Your task to perform on an android device: toggle location history Image 0: 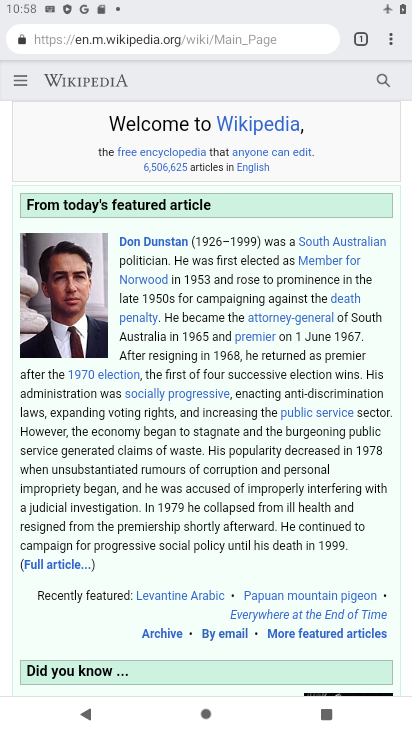
Step 0: press home button
Your task to perform on an android device: toggle location history Image 1: 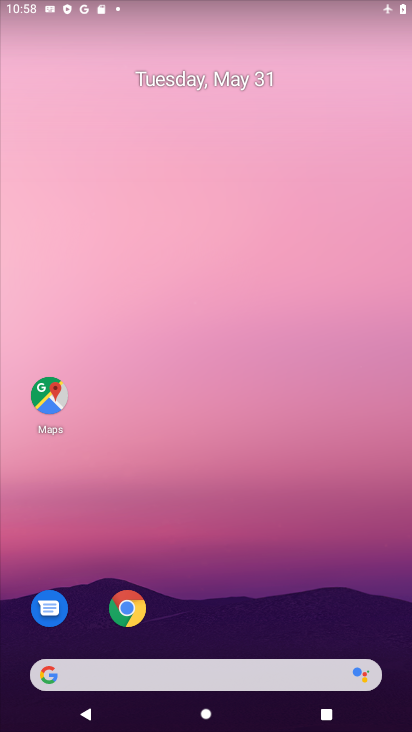
Step 1: click (57, 392)
Your task to perform on an android device: toggle location history Image 2: 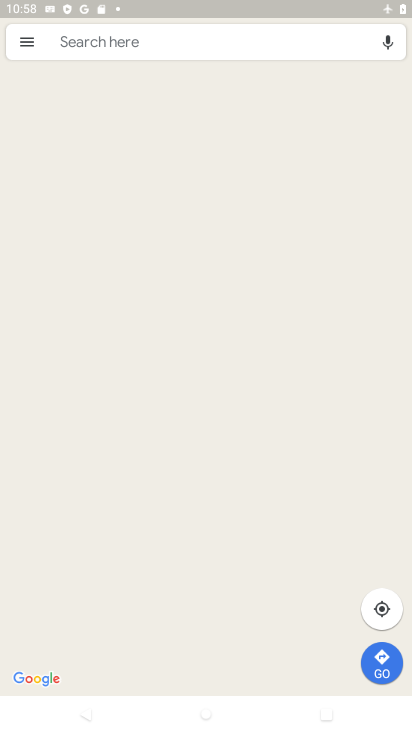
Step 2: drag from (391, 4) to (344, 647)
Your task to perform on an android device: toggle location history Image 3: 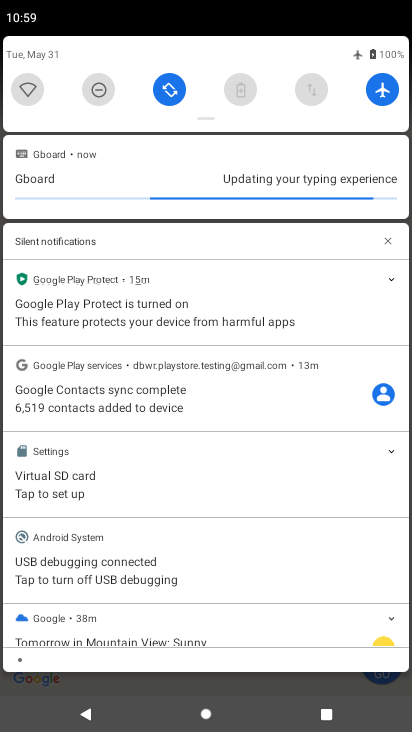
Step 3: click (375, 82)
Your task to perform on an android device: toggle location history Image 4: 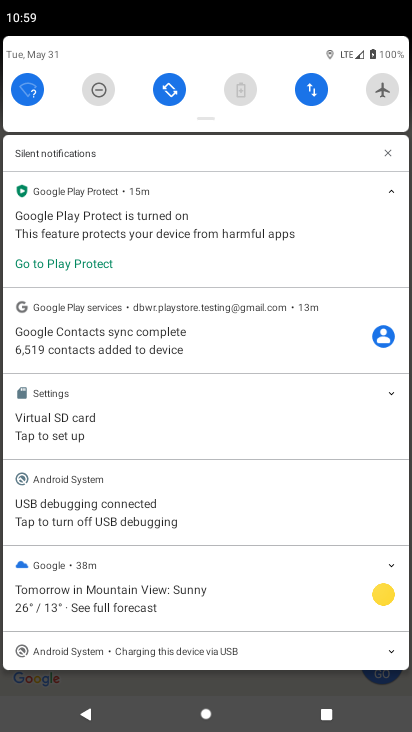
Step 4: drag from (176, 679) to (167, 245)
Your task to perform on an android device: toggle location history Image 5: 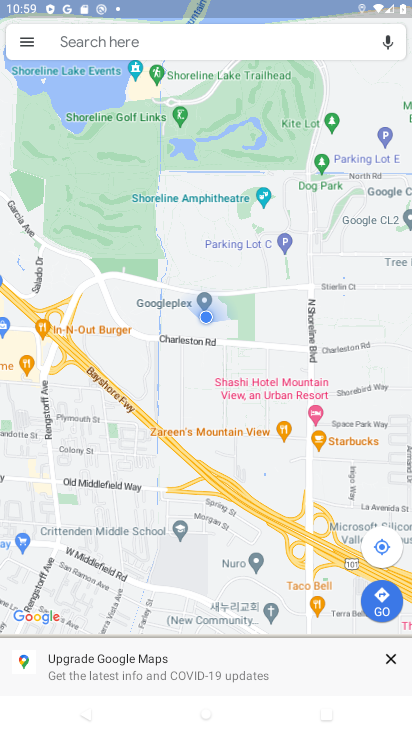
Step 5: click (23, 33)
Your task to perform on an android device: toggle location history Image 6: 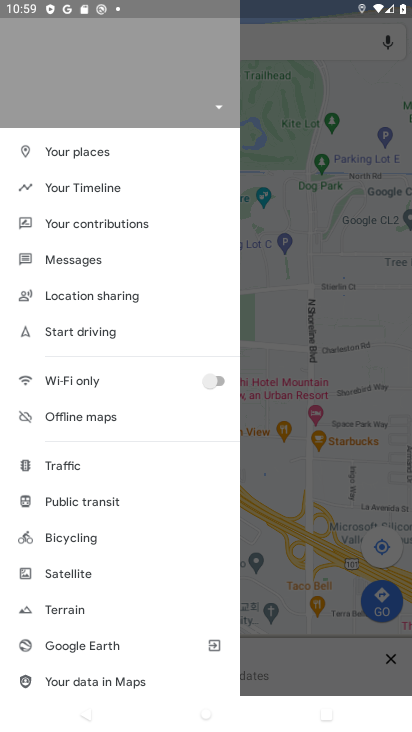
Step 6: click (79, 187)
Your task to perform on an android device: toggle location history Image 7: 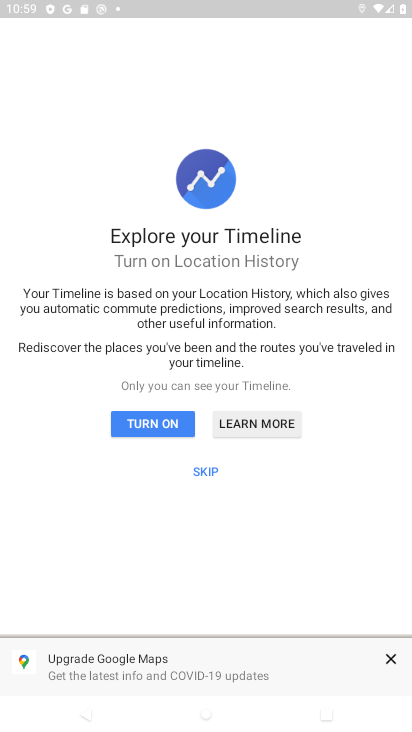
Step 7: click (153, 417)
Your task to perform on an android device: toggle location history Image 8: 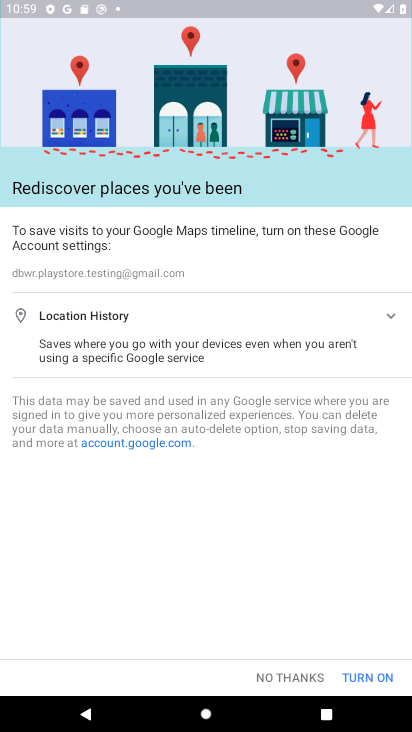
Step 8: drag from (304, 590) to (308, 107)
Your task to perform on an android device: toggle location history Image 9: 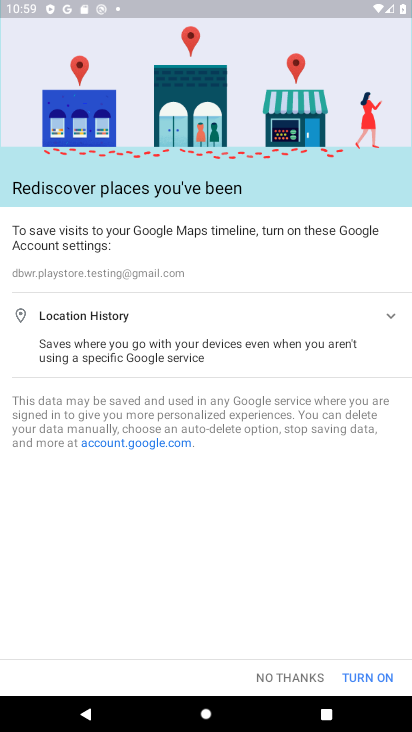
Step 9: click (366, 676)
Your task to perform on an android device: toggle location history Image 10: 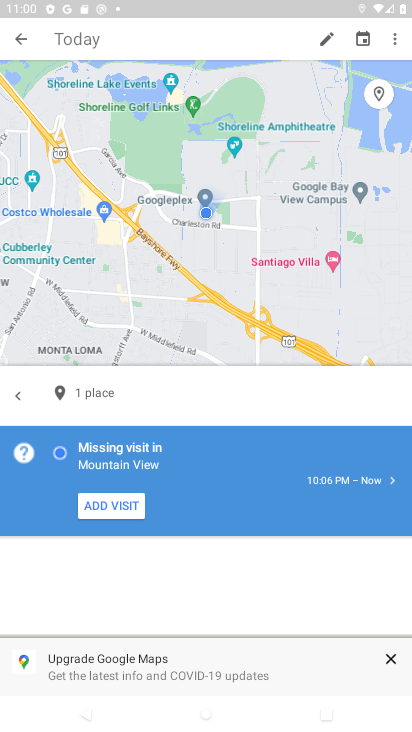
Step 10: task complete